Your task to perform on an android device: Open Google Maps Image 0: 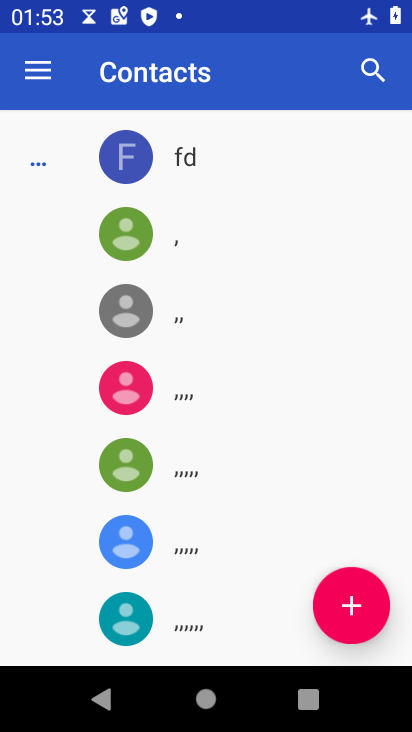
Step 0: press home button
Your task to perform on an android device: Open Google Maps Image 1: 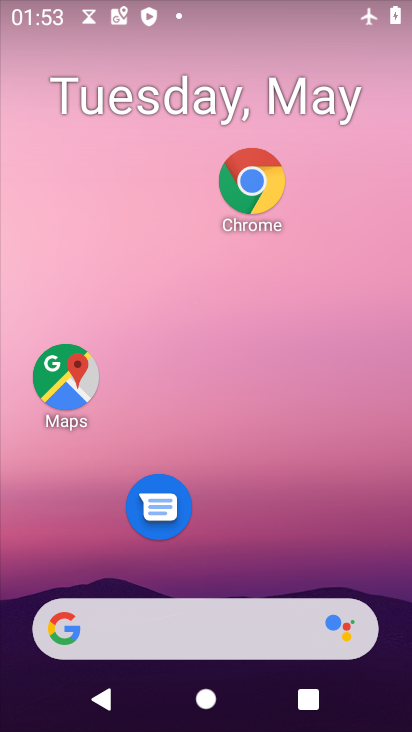
Step 1: click (69, 368)
Your task to perform on an android device: Open Google Maps Image 2: 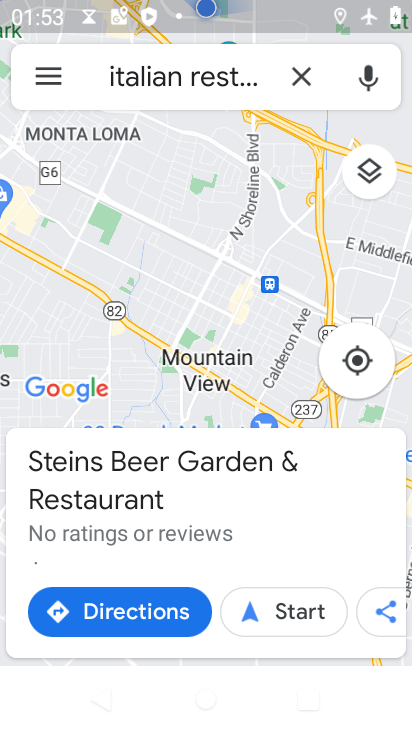
Step 2: task complete